Your task to perform on an android device: Turn off the flashlight Image 0: 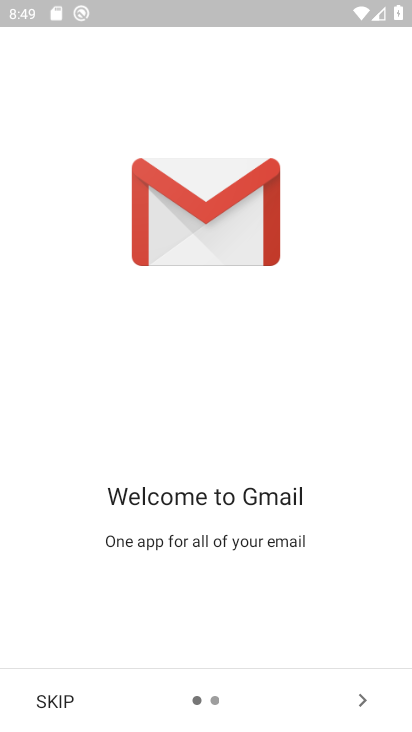
Step 0: press home button
Your task to perform on an android device: Turn off the flashlight Image 1: 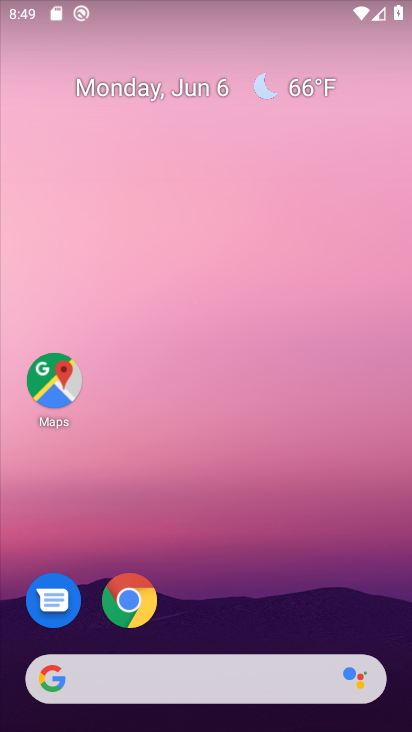
Step 1: drag from (225, 585) to (169, 13)
Your task to perform on an android device: Turn off the flashlight Image 2: 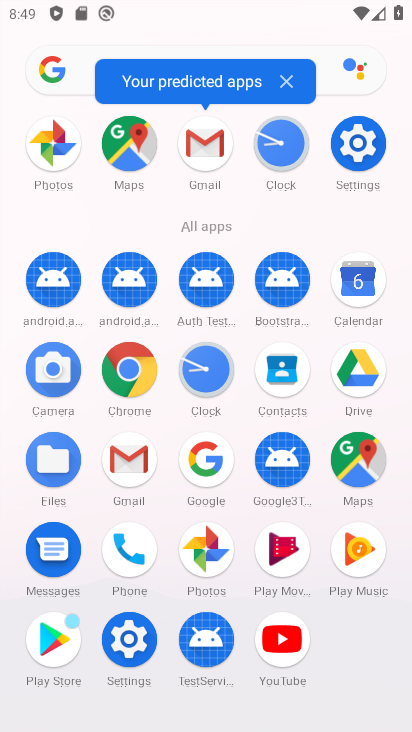
Step 2: click (122, 662)
Your task to perform on an android device: Turn off the flashlight Image 3: 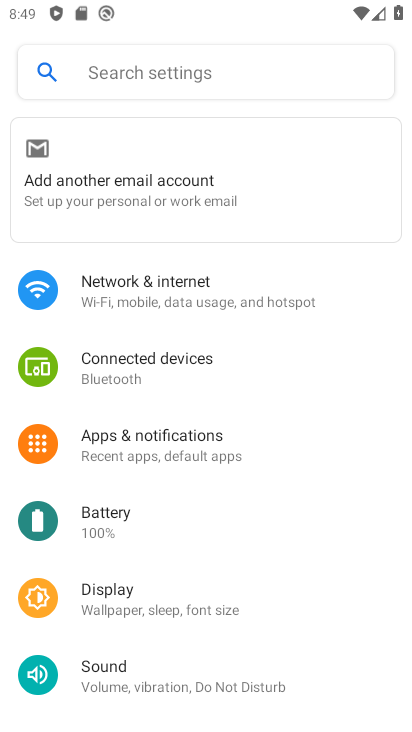
Step 3: task complete